Your task to perform on an android device: How much does a 3 bedroom apartment rent for in San Francisco? Image 0: 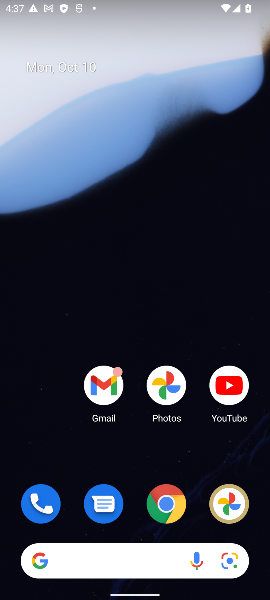
Step 0: drag from (107, 462) to (130, 124)
Your task to perform on an android device: How much does a 3 bedroom apartment rent for in San Francisco? Image 1: 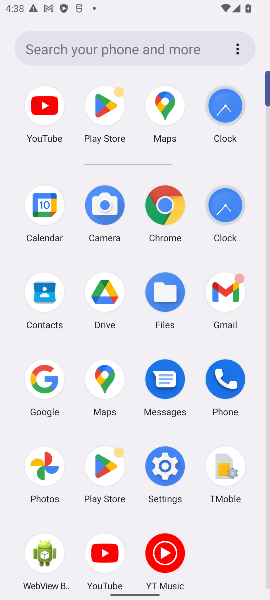
Step 1: click (168, 213)
Your task to perform on an android device: How much does a 3 bedroom apartment rent for in San Francisco? Image 2: 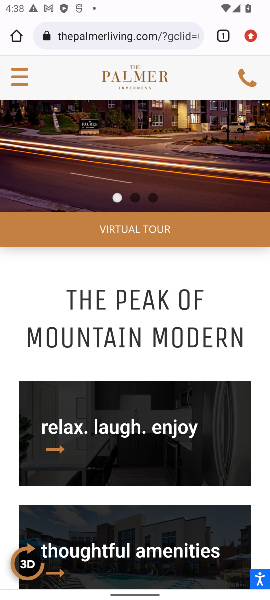
Step 2: click (147, 38)
Your task to perform on an android device: How much does a 3 bedroom apartment rent for in San Francisco? Image 3: 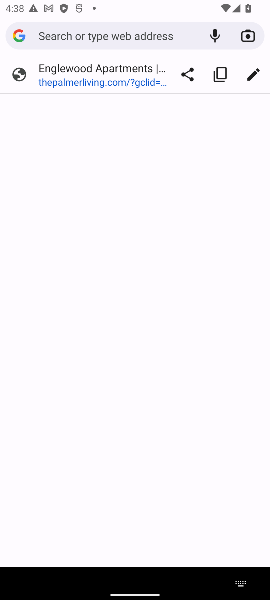
Step 3: type "How much does a 3 bedroom apartment rent for in San Francisco?"
Your task to perform on an android device: How much does a 3 bedroom apartment rent for in San Francisco? Image 4: 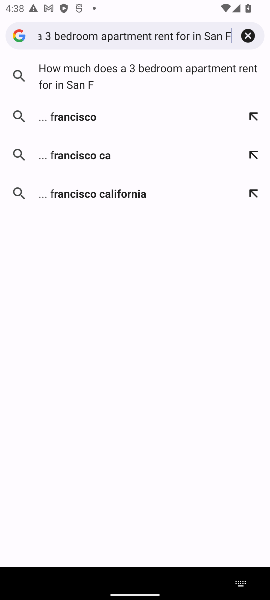
Step 4: press enter
Your task to perform on an android device: How much does a 3 bedroom apartment rent for in San Francisco? Image 5: 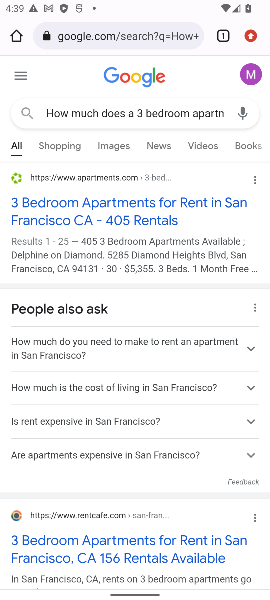
Step 5: click (102, 203)
Your task to perform on an android device: How much does a 3 bedroom apartment rent for in San Francisco? Image 6: 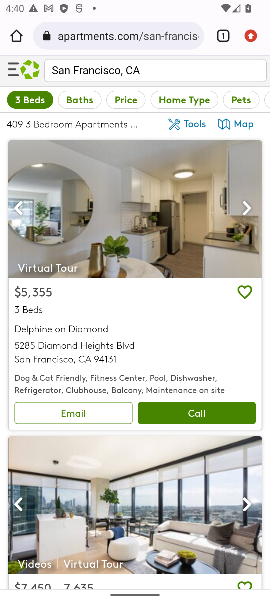
Step 6: task complete